Your task to perform on an android device: set the stopwatch Image 0: 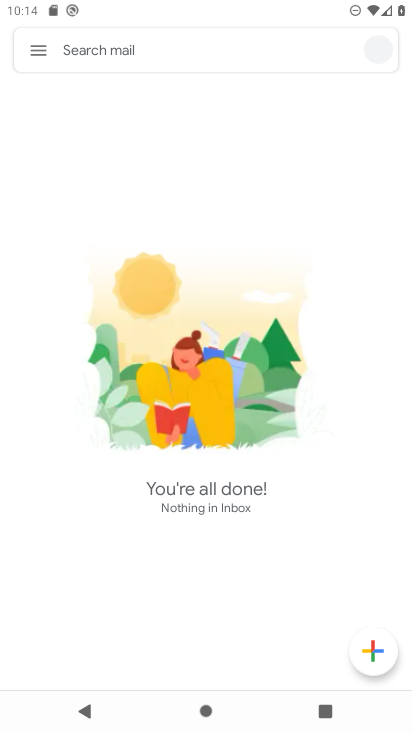
Step 0: press home button
Your task to perform on an android device: set the stopwatch Image 1: 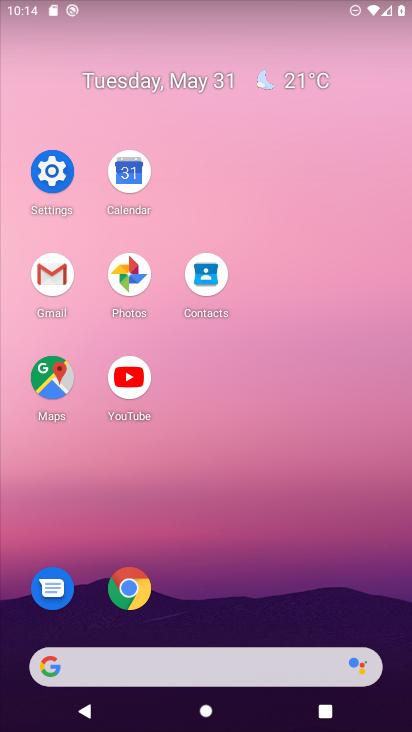
Step 1: drag from (311, 571) to (310, 127)
Your task to perform on an android device: set the stopwatch Image 2: 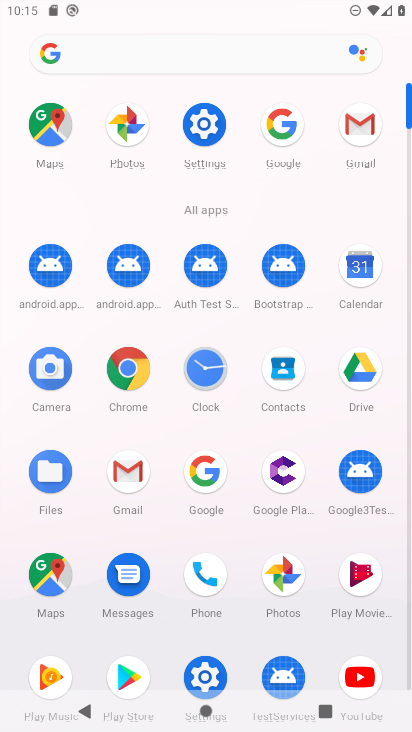
Step 2: drag from (184, 597) to (175, 264)
Your task to perform on an android device: set the stopwatch Image 3: 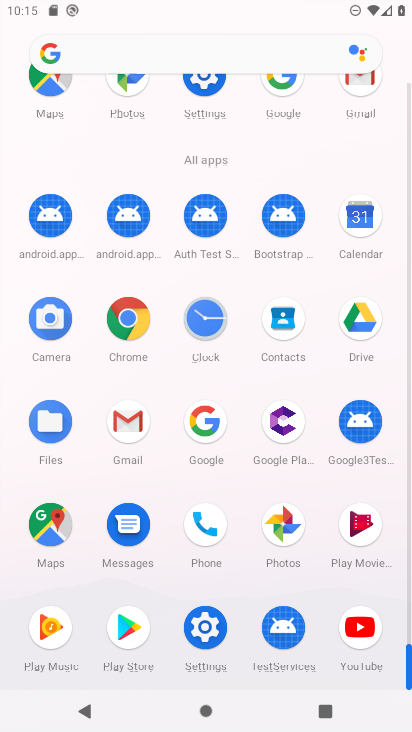
Step 3: drag from (214, 320) to (204, 207)
Your task to perform on an android device: set the stopwatch Image 4: 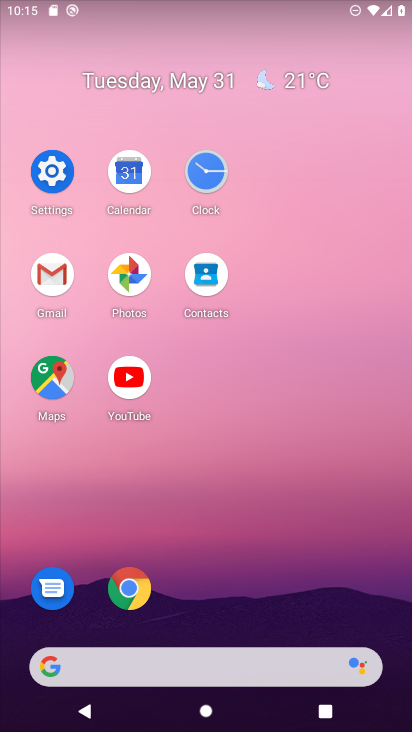
Step 4: click (206, 184)
Your task to perform on an android device: set the stopwatch Image 5: 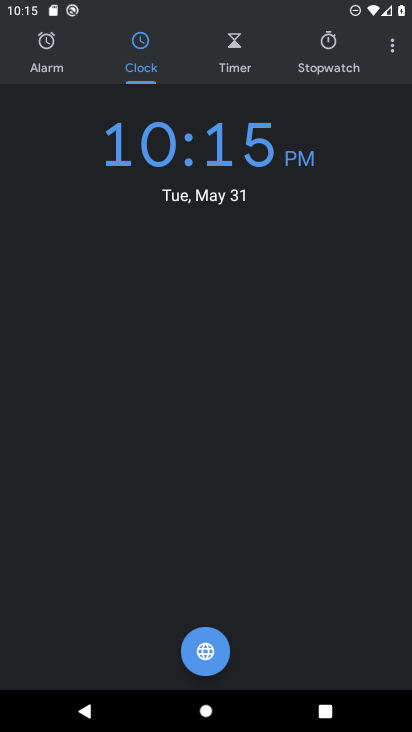
Step 5: click (316, 64)
Your task to perform on an android device: set the stopwatch Image 6: 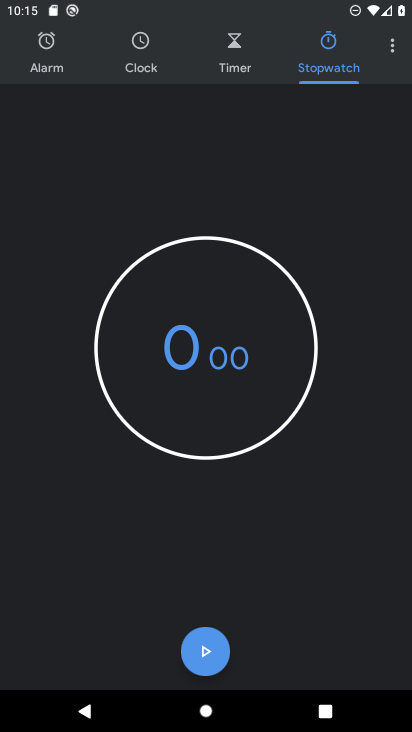
Step 6: click (217, 641)
Your task to perform on an android device: set the stopwatch Image 7: 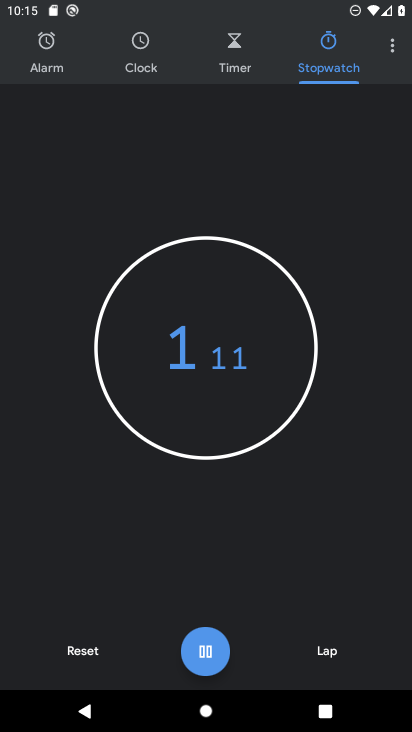
Step 7: task complete